Your task to perform on an android device: open a new tab in the chrome app Image 0: 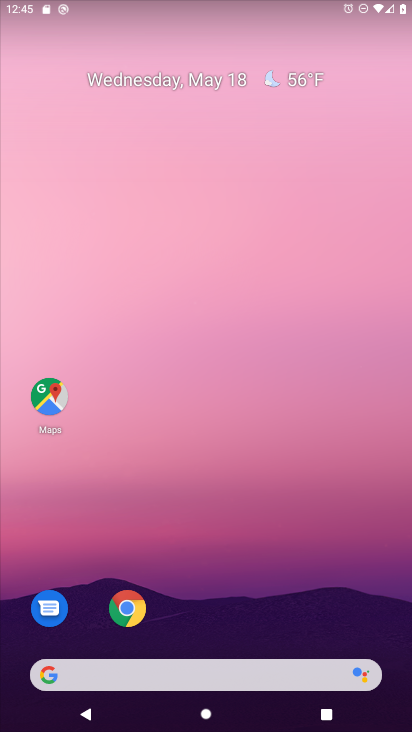
Step 0: drag from (268, 691) to (244, 339)
Your task to perform on an android device: open a new tab in the chrome app Image 1: 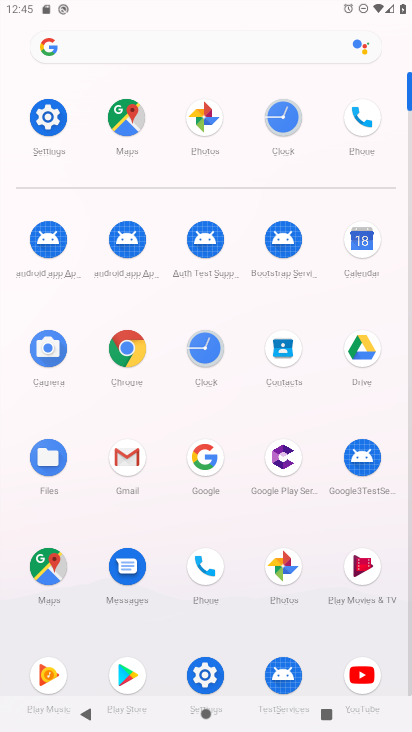
Step 1: click (136, 361)
Your task to perform on an android device: open a new tab in the chrome app Image 2: 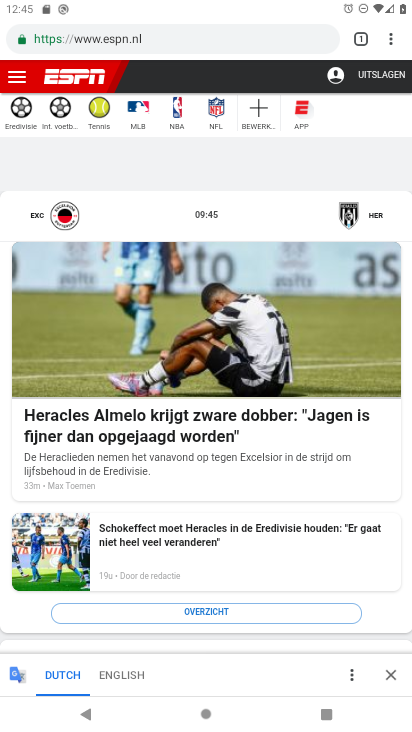
Step 2: click (395, 44)
Your task to perform on an android device: open a new tab in the chrome app Image 3: 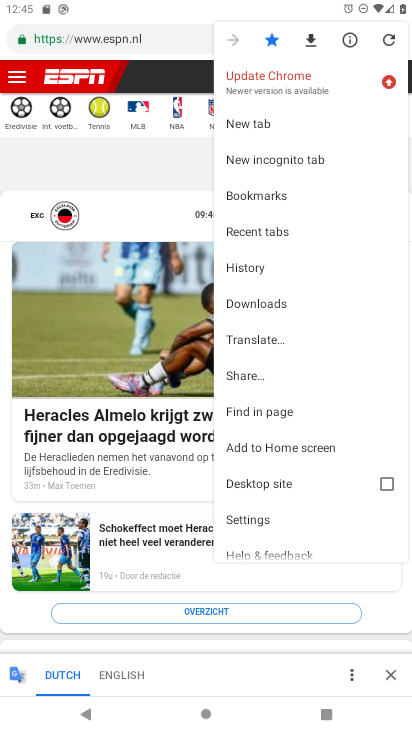
Step 3: click (256, 125)
Your task to perform on an android device: open a new tab in the chrome app Image 4: 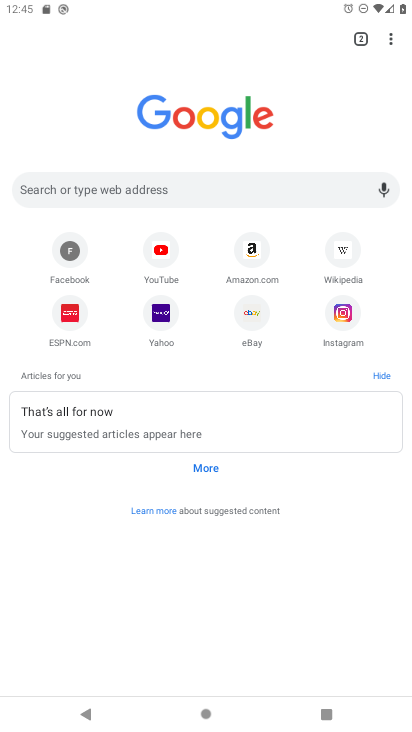
Step 4: task complete